Your task to perform on an android device: When is my next appointment? Image 0: 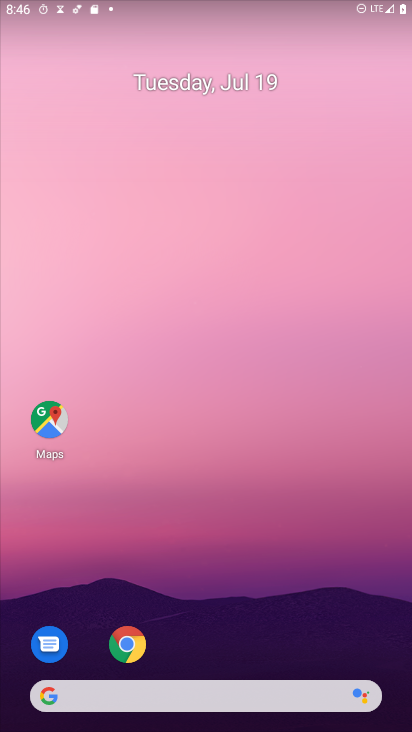
Step 0: drag from (33, 676) to (151, 162)
Your task to perform on an android device: When is my next appointment? Image 1: 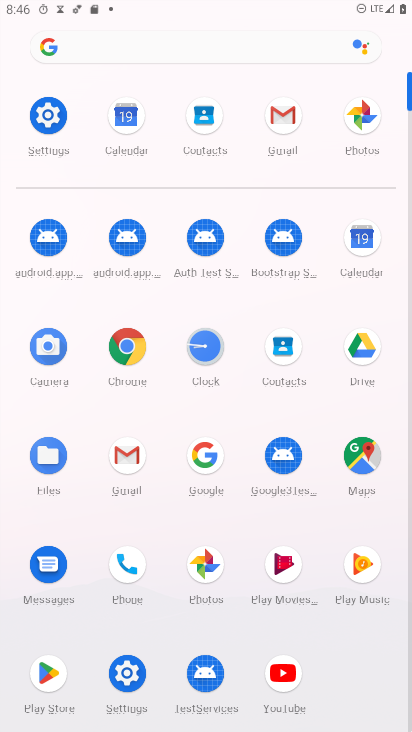
Step 1: click (369, 249)
Your task to perform on an android device: When is my next appointment? Image 2: 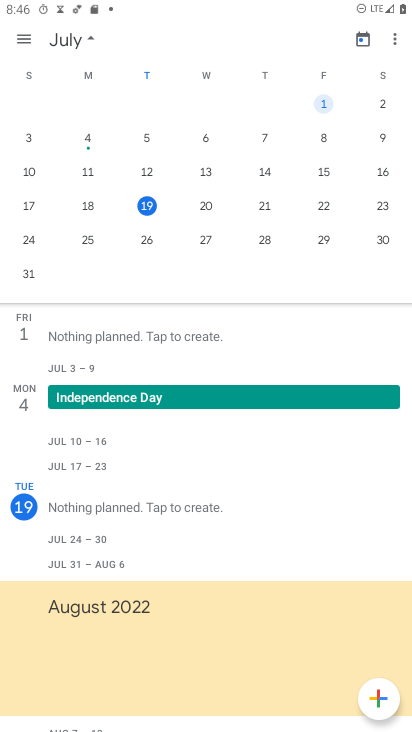
Step 2: task complete